Your task to perform on an android device: Go to Yahoo.com Image 0: 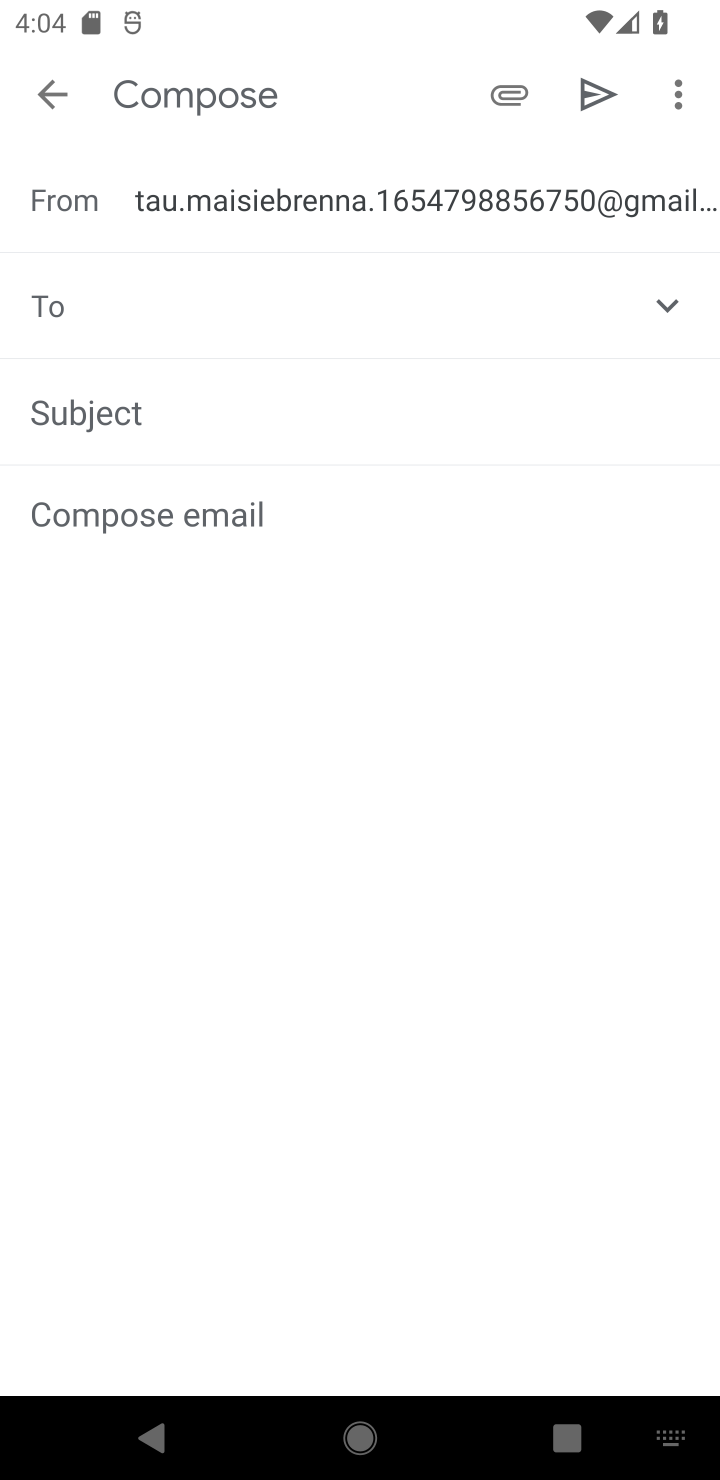
Step 0: press back button
Your task to perform on an android device: Go to Yahoo.com Image 1: 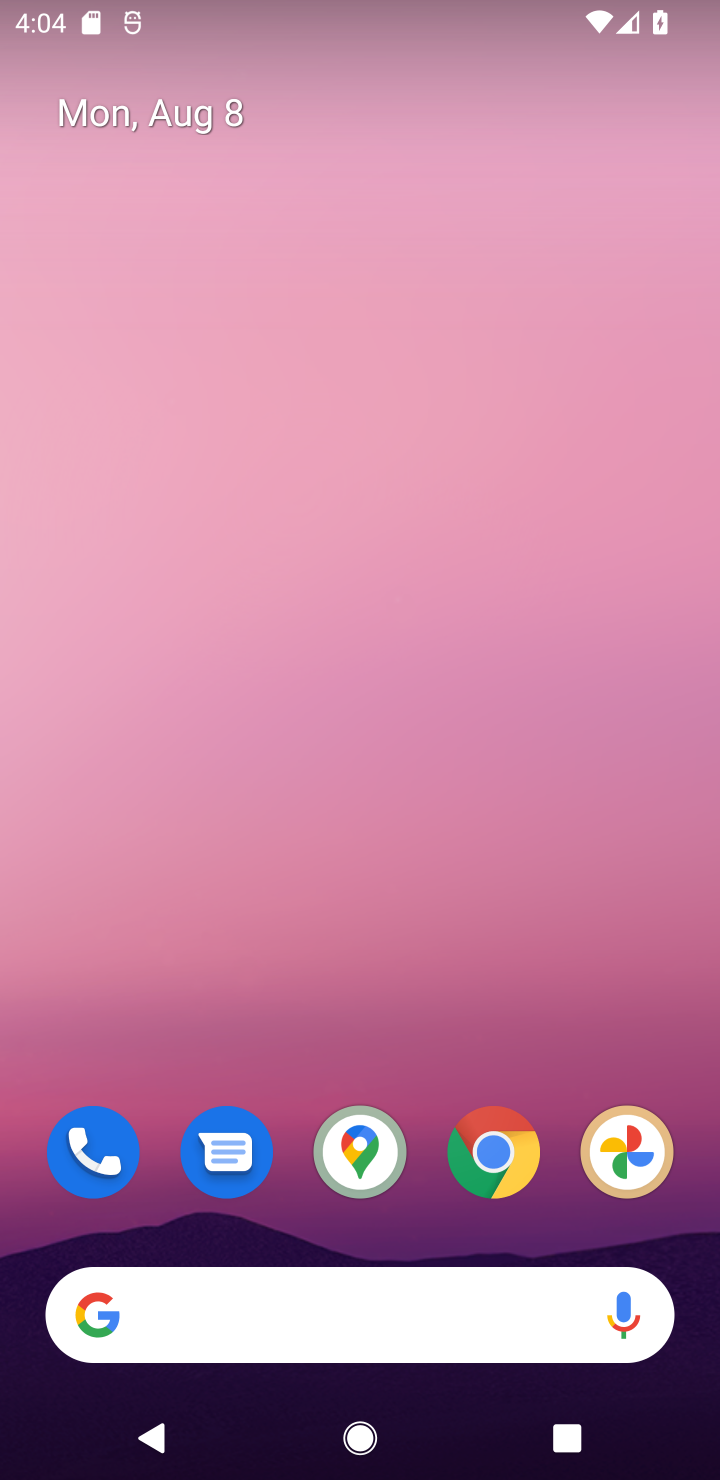
Step 1: click (502, 1141)
Your task to perform on an android device: Go to Yahoo.com Image 2: 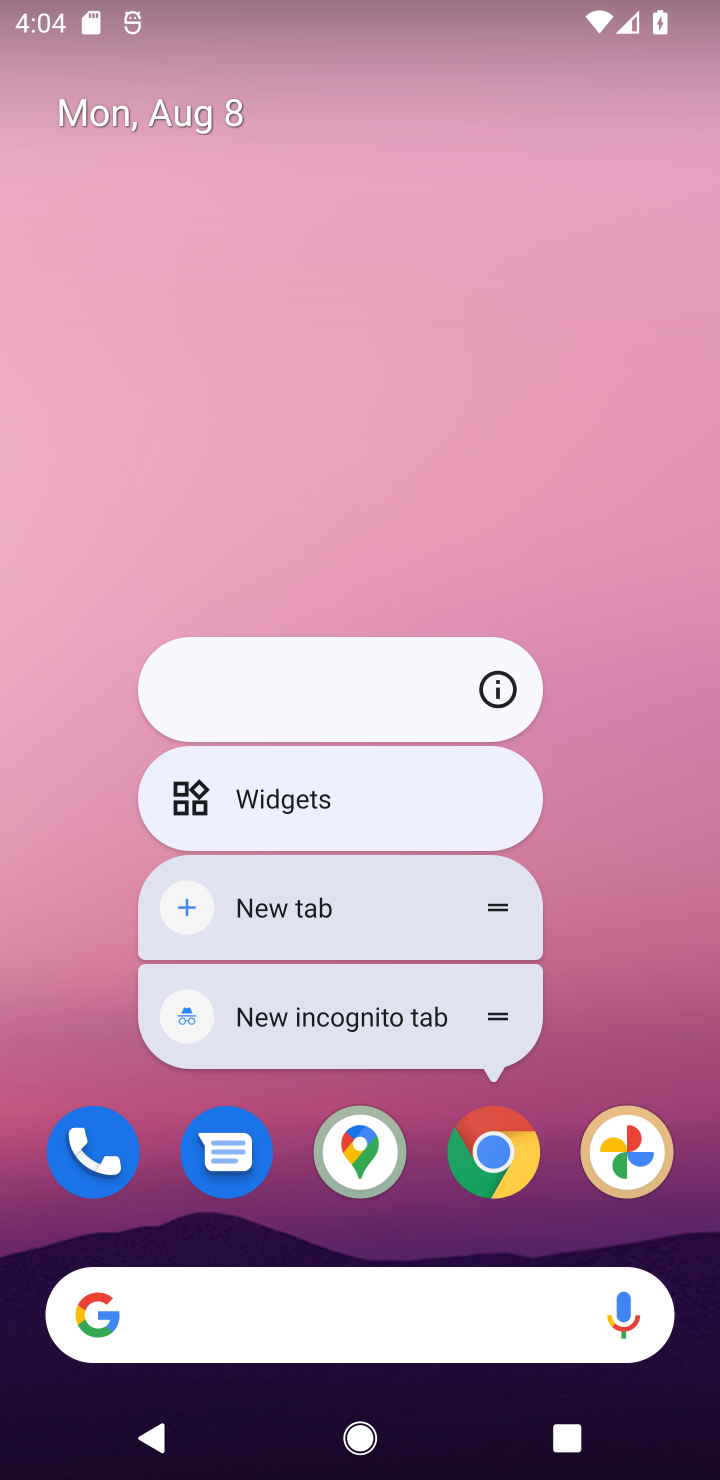
Step 2: click (509, 1143)
Your task to perform on an android device: Go to Yahoo.com Image 3: 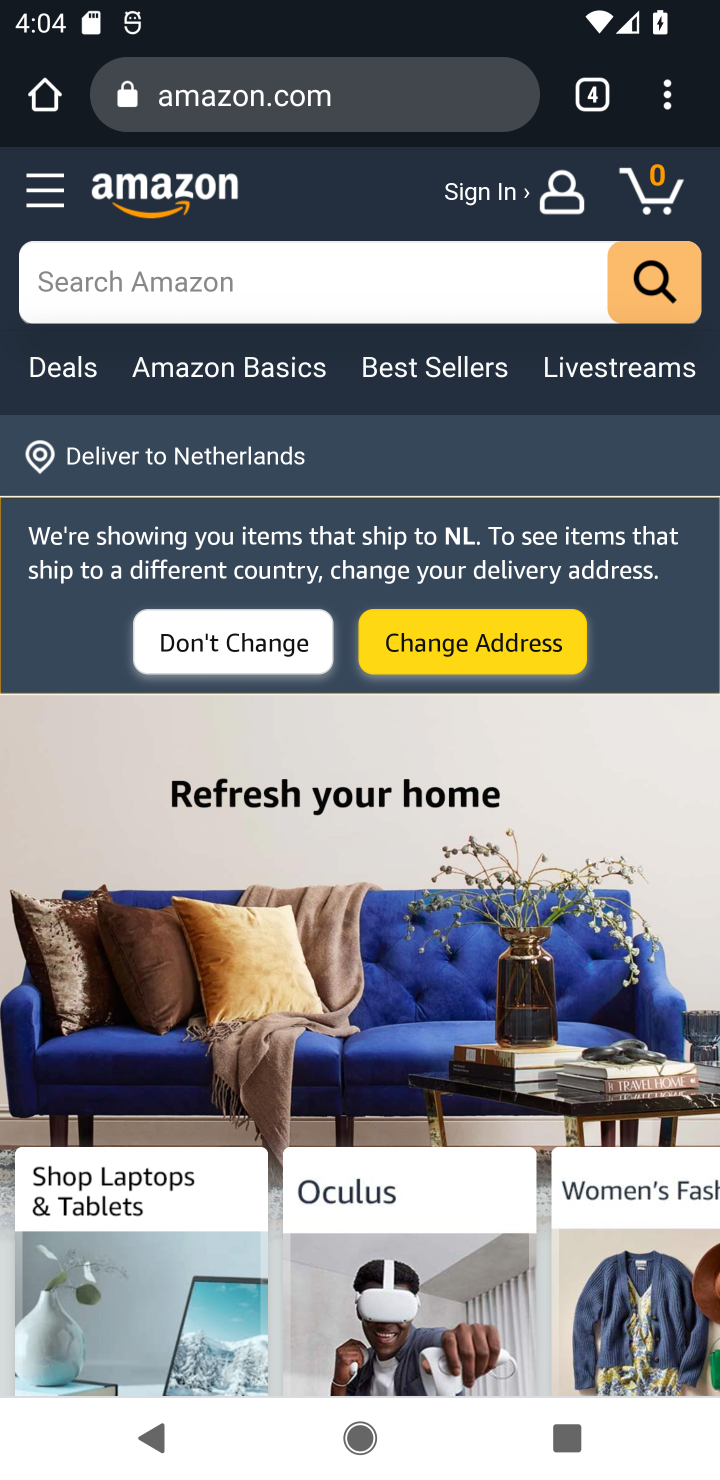
Step 3: click (593, 93)
Your task to perform on an android device: Go to Yahoo.com Image 4: 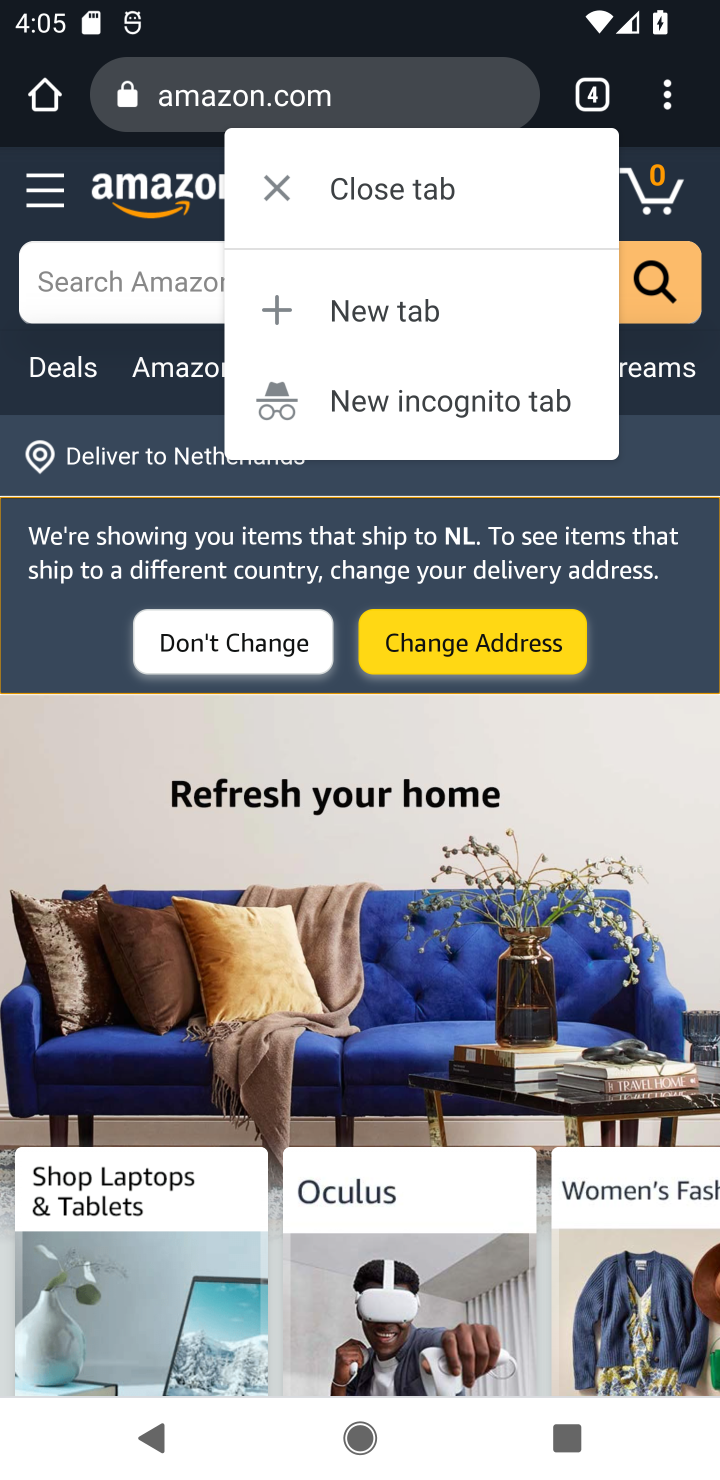
Step 4: click (594, 91)
Your task to perform on an android device: Go to Yahoo.com Image 5: 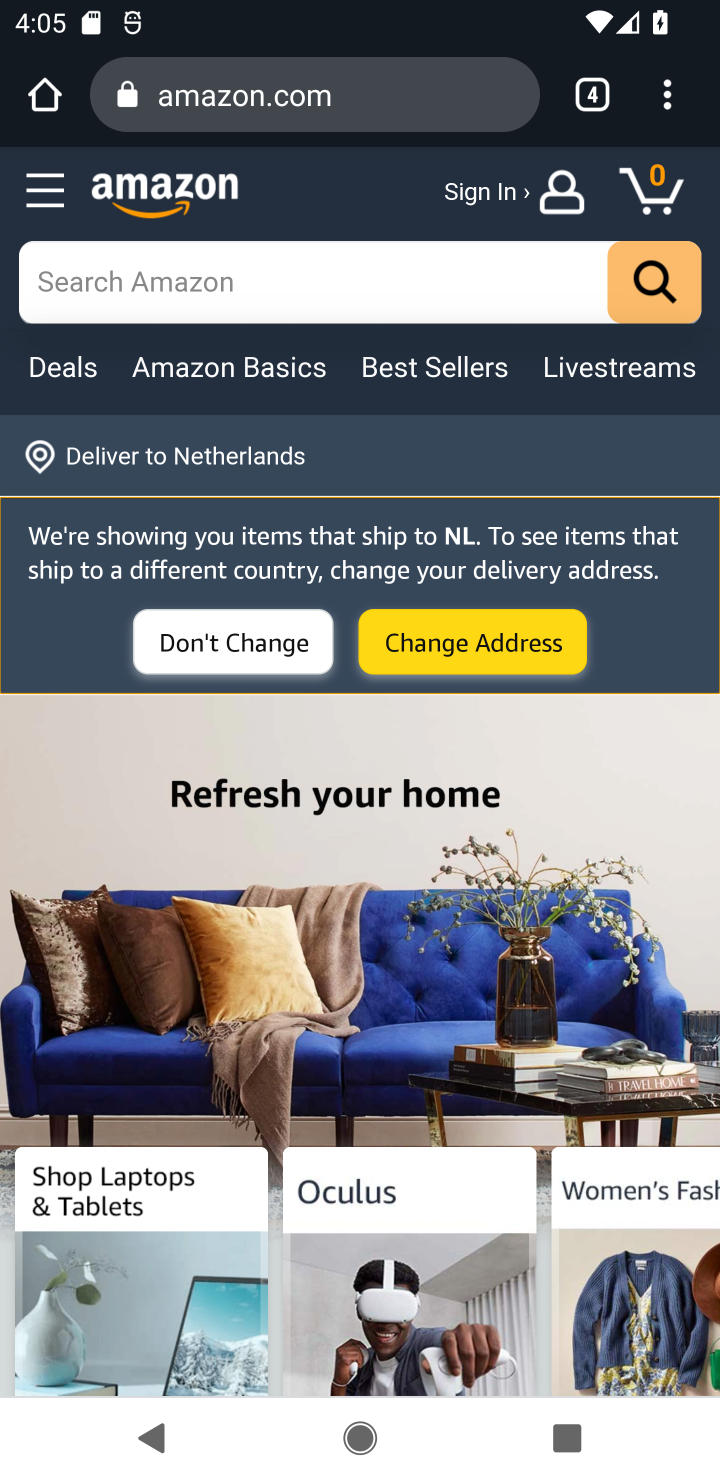
Step 5: click (594, 87)
Your task to perform on an android device: Go to Yahoo.com Image 6: 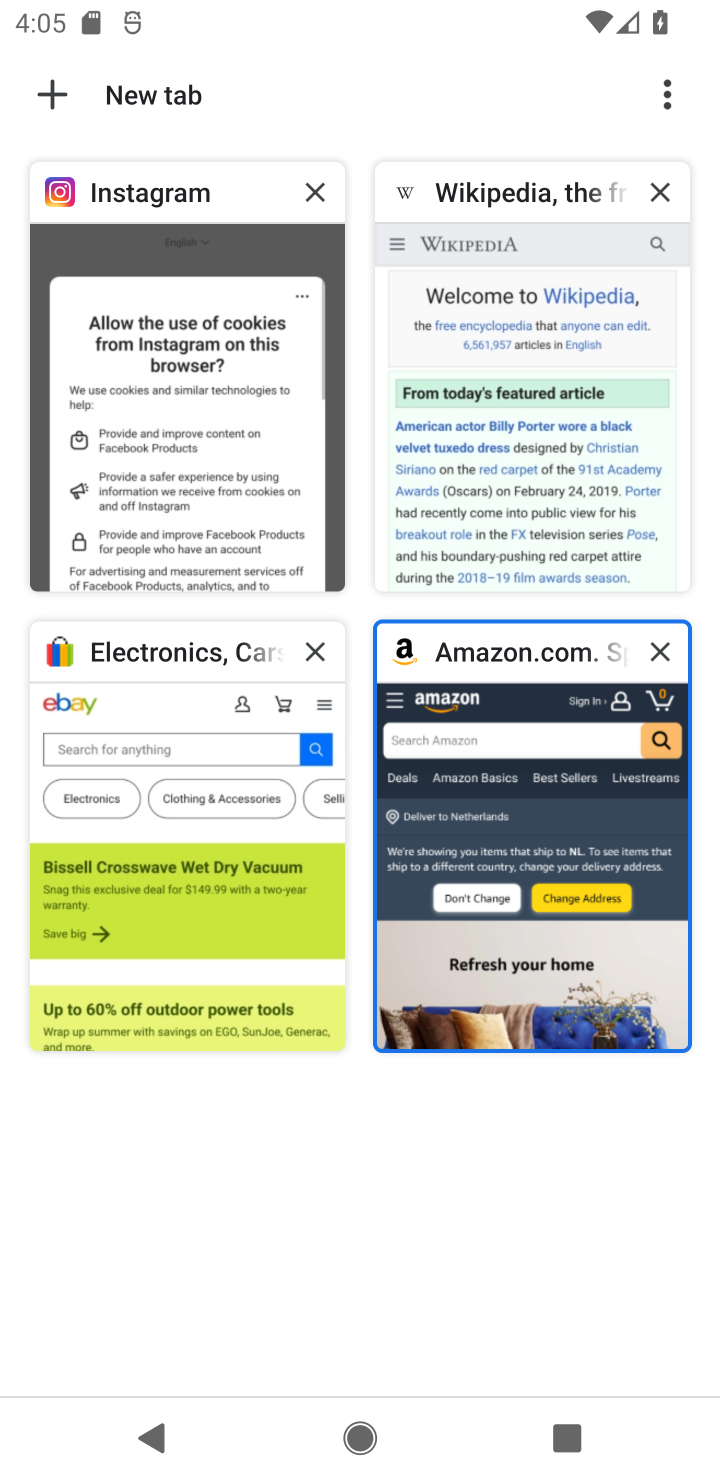
Step 6: click (58, 85)
Your task to perform on an android device: Go to Yahoo.com Image 7: 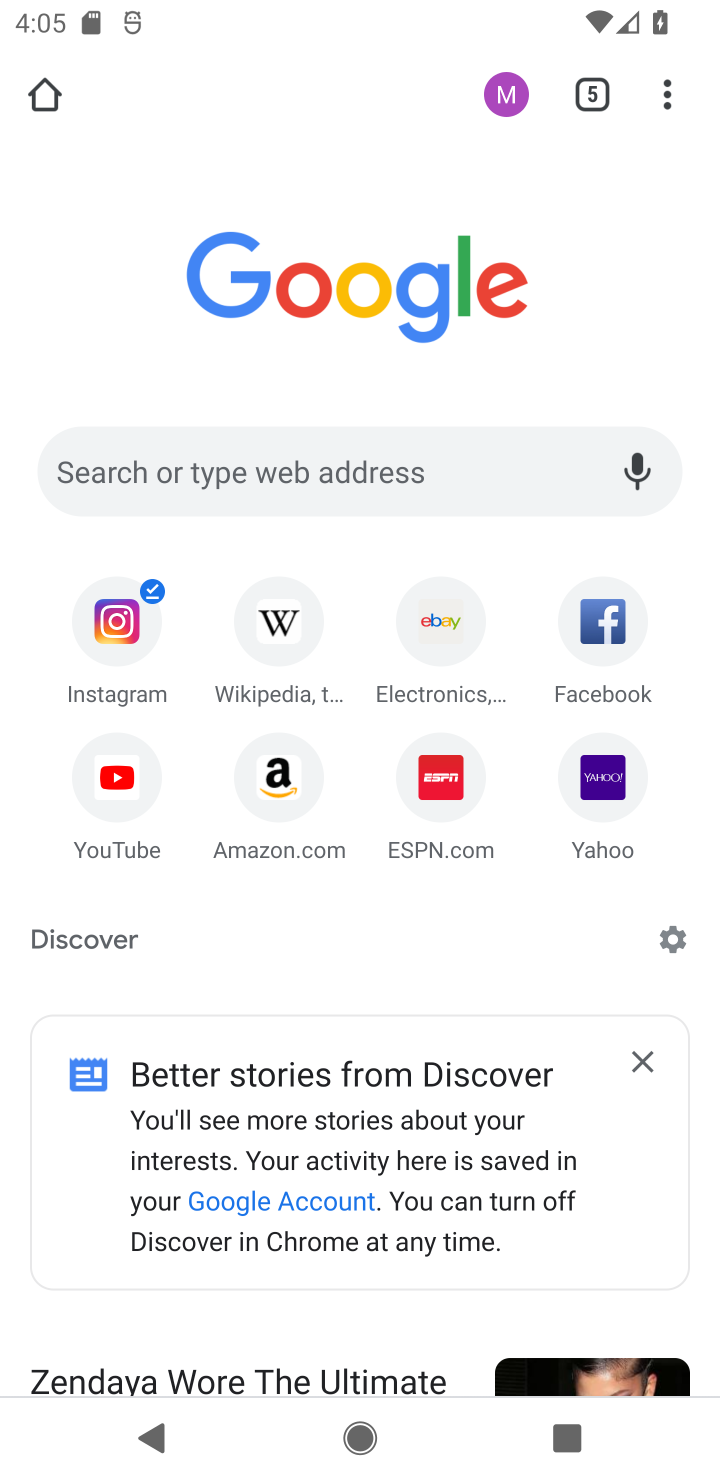
Step 7: click (615, 783)
Your task to perform on an android device: Go to Yahoo.com Image 8: 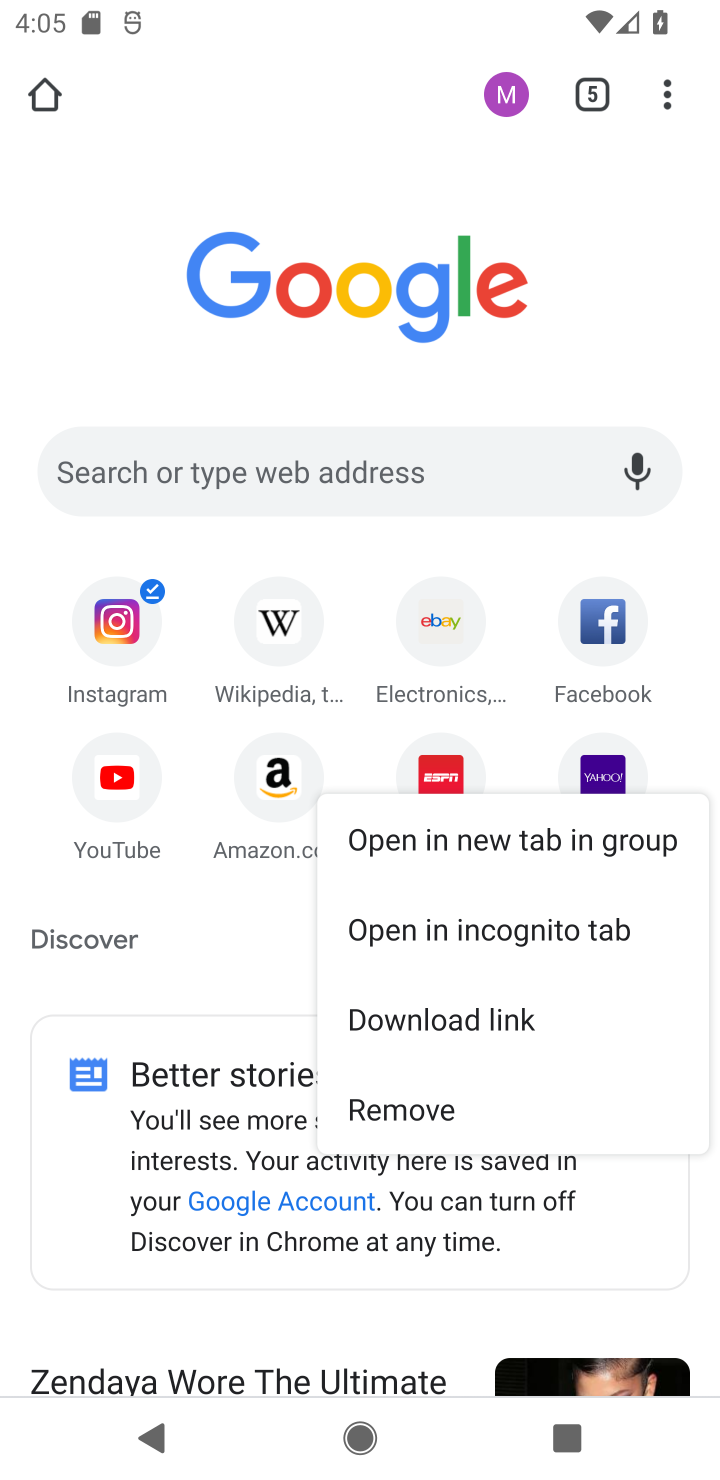
Step 8: click (609, 755)
Your task to perform on an android device: Go to Yahoo.com Image 9: 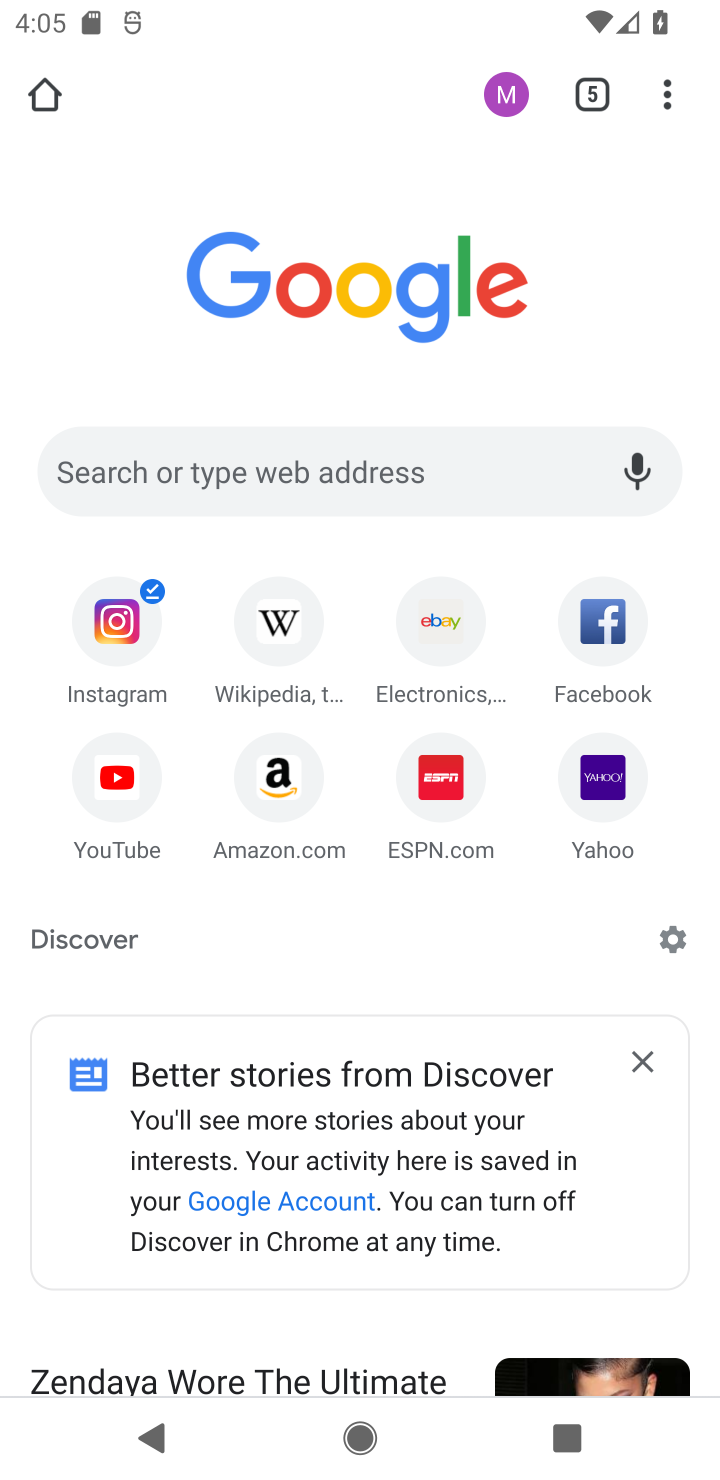
Step 9: click (609, 793)
Your task to perform on an android device: Go to Yahoo.com Image 10: 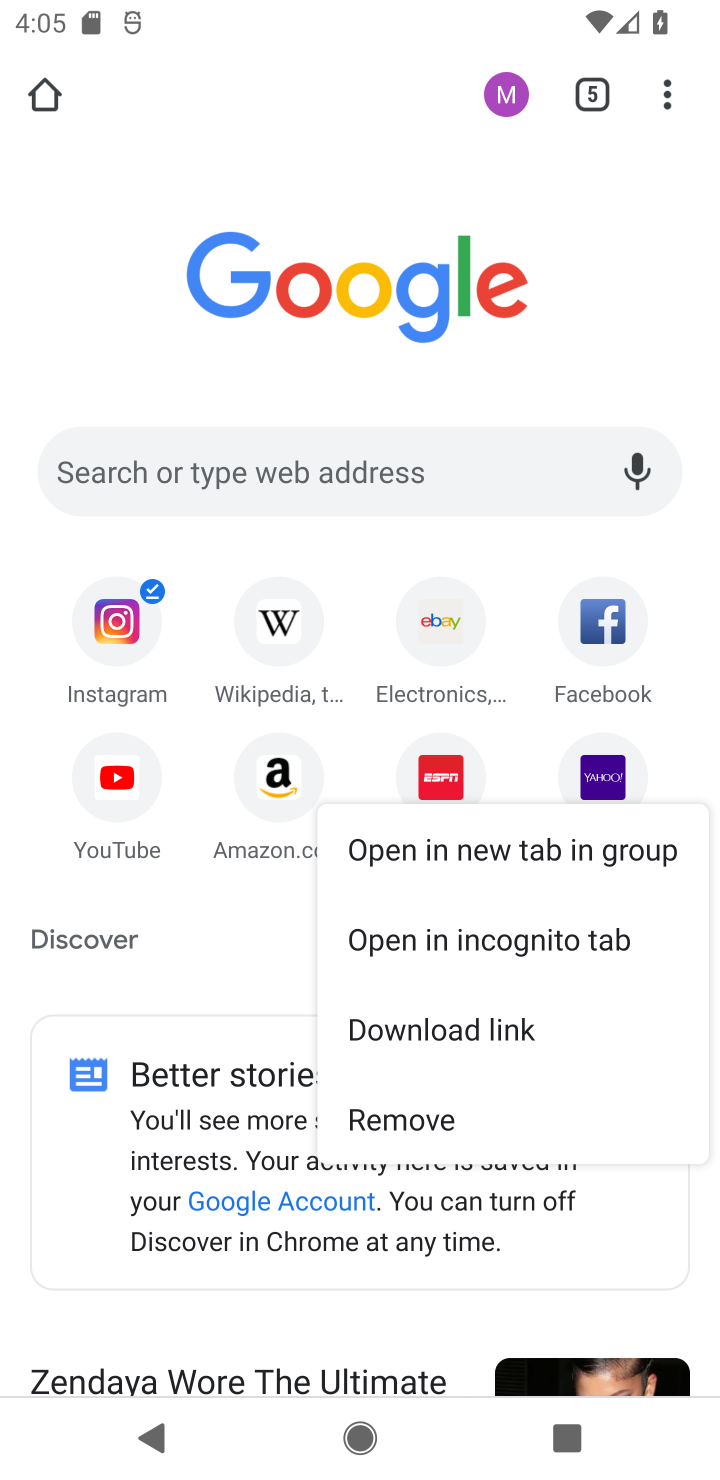
Step 10: click (611, 766)
Your task to perform on an android device: Go to Yahoo.com Image 11: 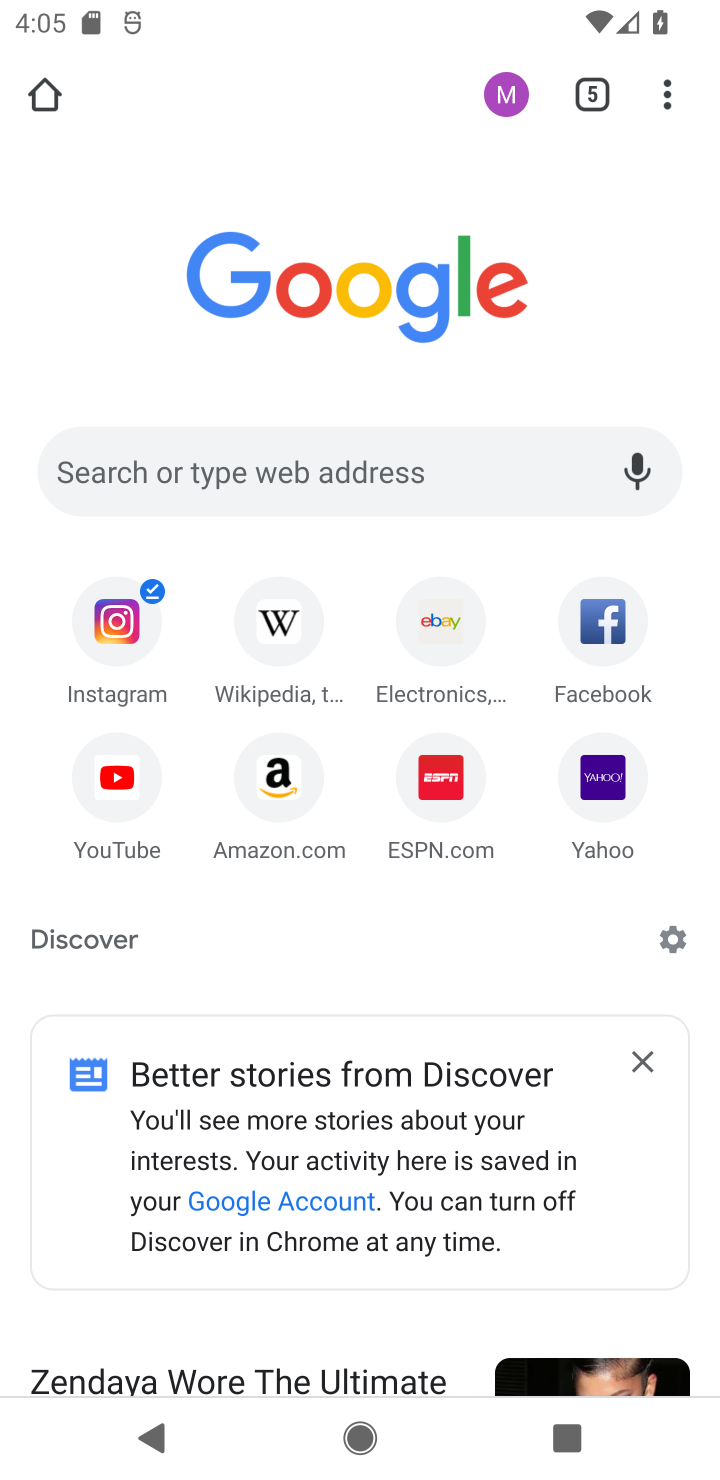
Step 11: click (596, 800)
Your task to perform on an android device: Go to Yahoo.com Image 12: 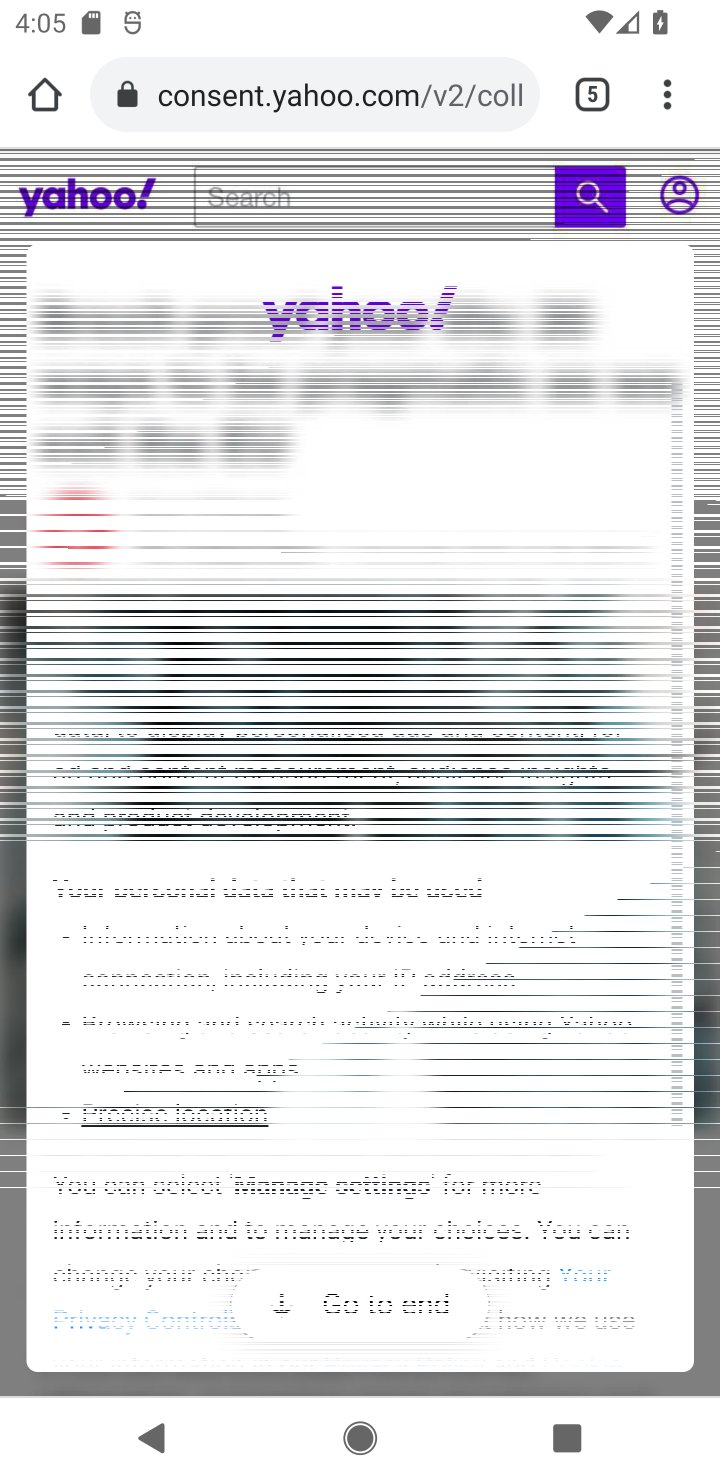
Step 12: task complete